Your task to perform on an android device: search for starred emails in the gmail app Image 0: 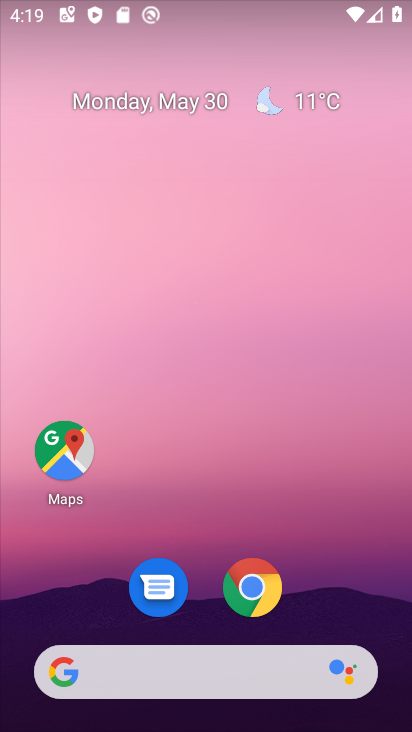
Step 0: drag from (317, 594) to (234, 123)
Your task to perform on an android device: search for starred emails in the gmail app Image 1: 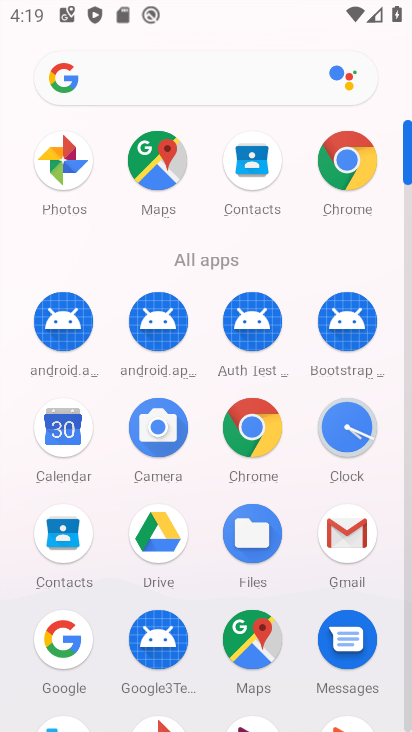
Step 1: click (354, 538)
Your task to perform on an android device: search for starred emails in the gmail app Image 2: 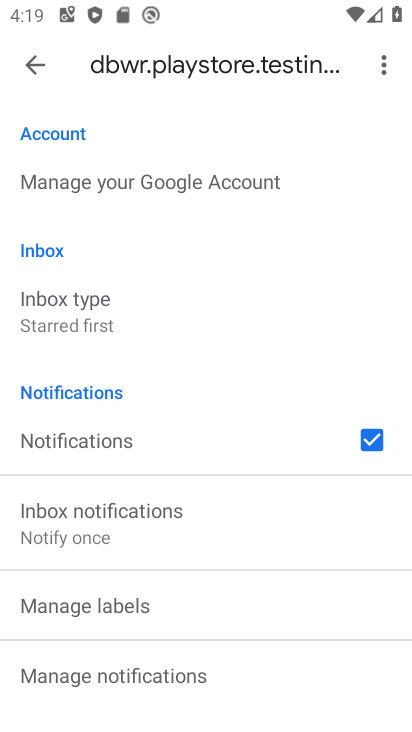
Step 2: click (45, 58)
Your task to perform on an android device: search for starred emails in the gmail app Image 3: 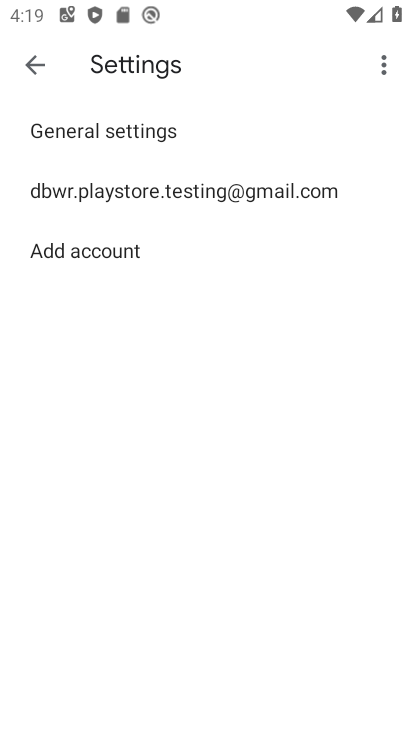
Step 3: click (45, 58)
Your task to perform on an android device: search for starred emails in the gmail app Image 4: 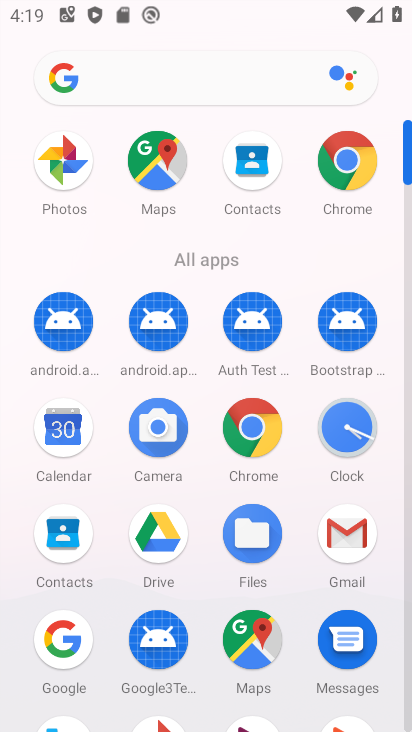
Step 4: click (340, 532)
Your task to perform on an android device: search for starred emails in the gmail app Image 5: 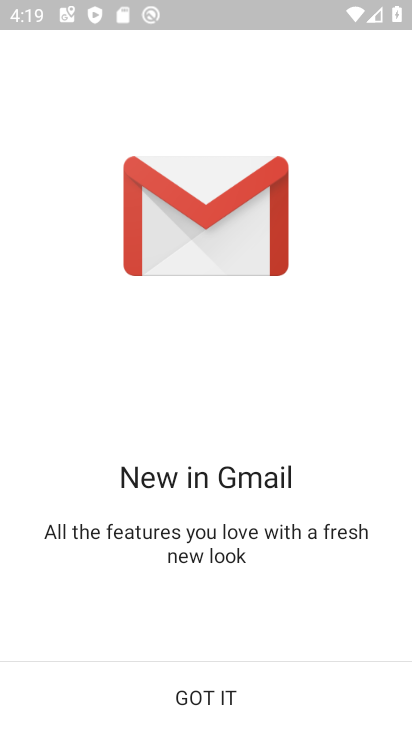
Step 5: click (217, 690)
Your task to perform on an android device: search for starred emails in the gmail app Image 6: 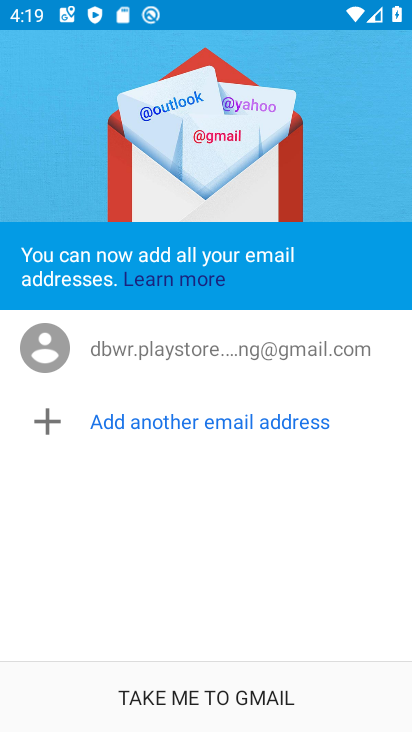
Step 6: click (217, 690)
Your task to perform on an android device: search for starred emails in the gmail app Image 7: 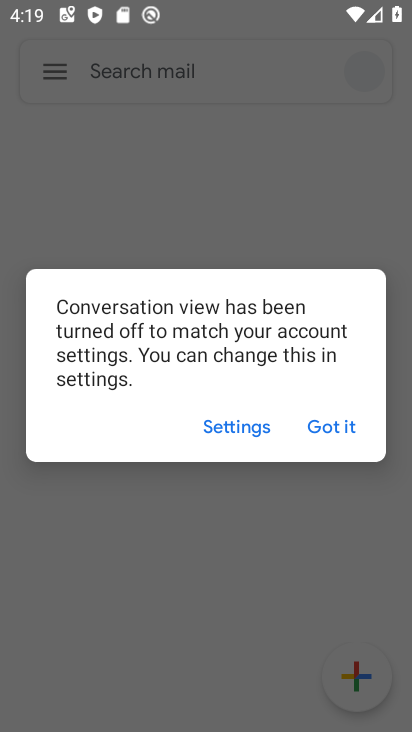
Step 7: click (346, 416)
Your task to perform on an android device: search for starred emails in the gmail app Image 8: 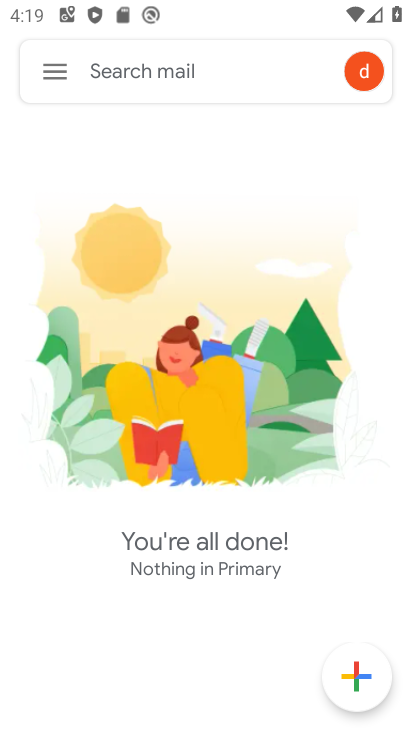
Step 8: click (54, 59)
Your task to perform on an android device: search for starred emails in the gmail app Image 9: 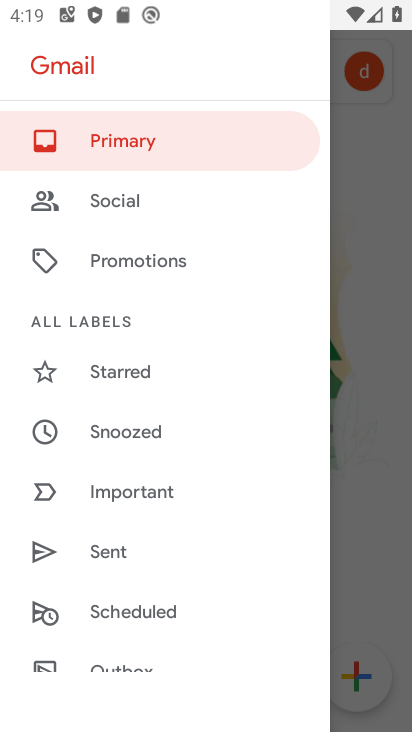
Step 9: click (109, 392)
Your task to perform on an android device: search for starred emails in the gmail app Image 10: 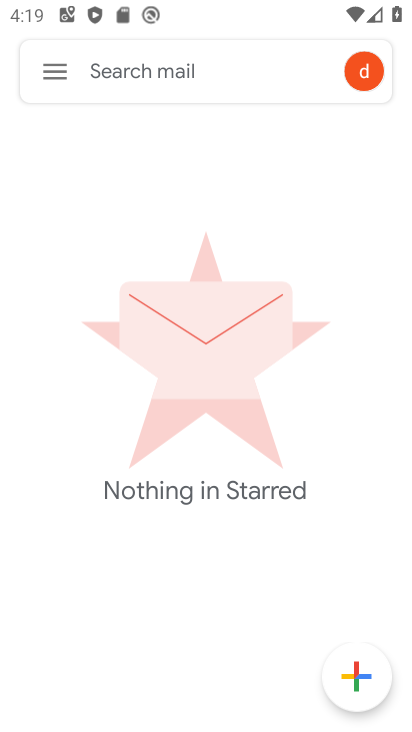
Step 10: task complete